Your task to perform on an android device: Open display settings Image 0: 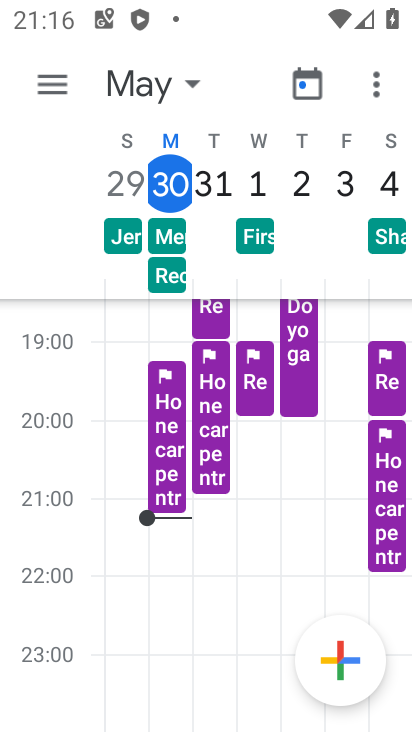
Step 0: press home button
Your task to perform on an android device: Open display settings Image 1: 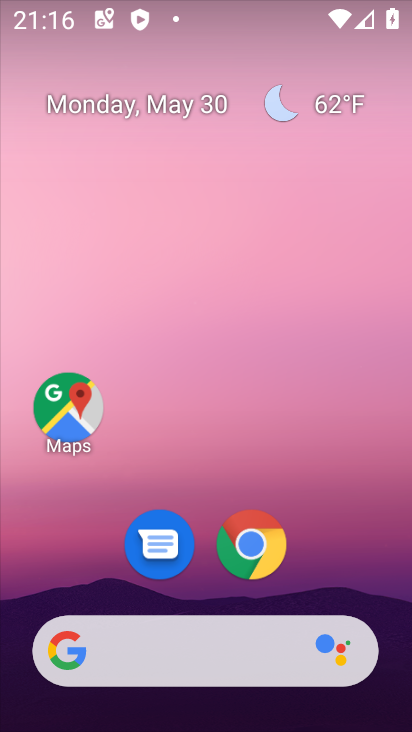
Step 1: drag from (328, 573) to (198, 156)
Your task to perform on an android device: Open display settings Image 2: 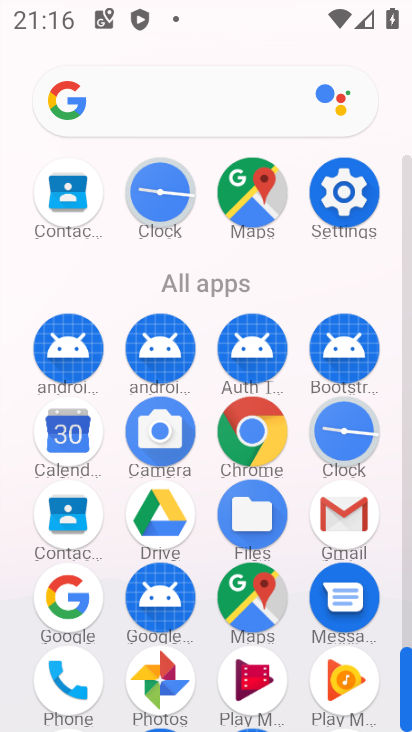
Step 2: click (343, 193)
Your task to perform on an android device: Open display settings Image 3: 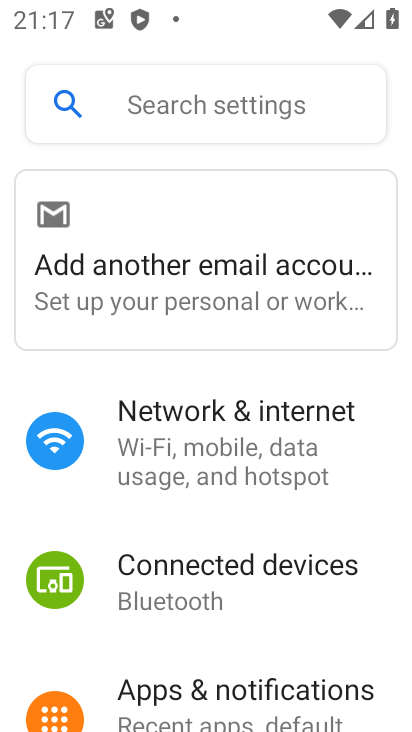
Step 3: drag from (193, 536) to (237, 418)
Your task to perform on an android device: Open display settings Image 4: 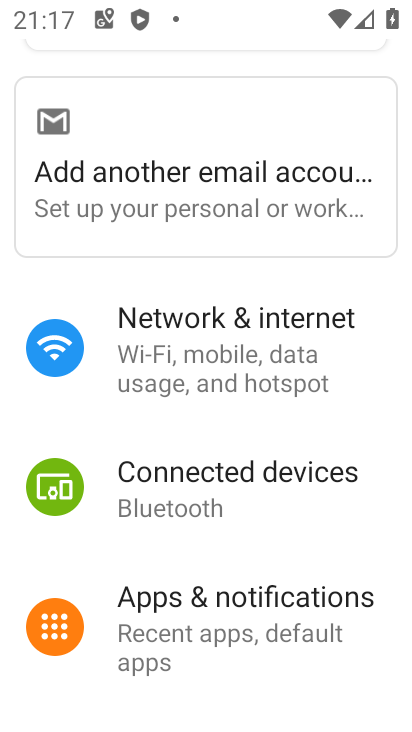
Step 4: drag from (226, 552) to (221, 323)
Your task to perform on an android device: Open display settings Image 5: 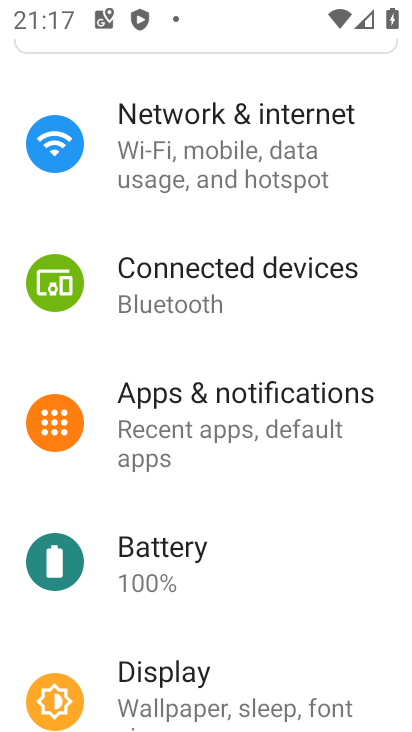
Step 5: drag from (231, 618) to (236, 470)
Your task to perform on an android device: Open display settings Image 6: 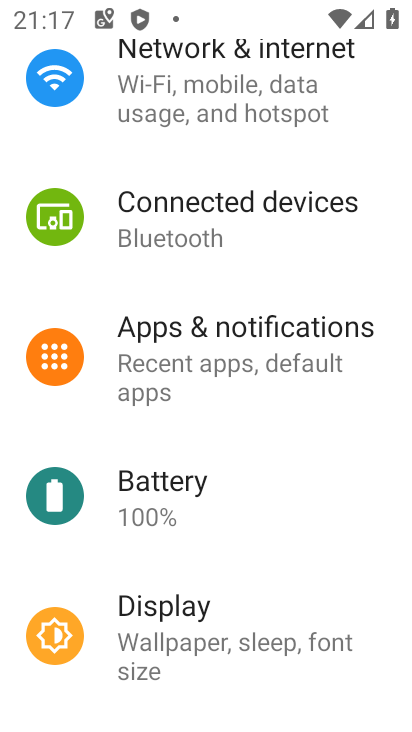
Step 6: click (173, 626)
Your task to perform on an android device: Open display settings Image 7: 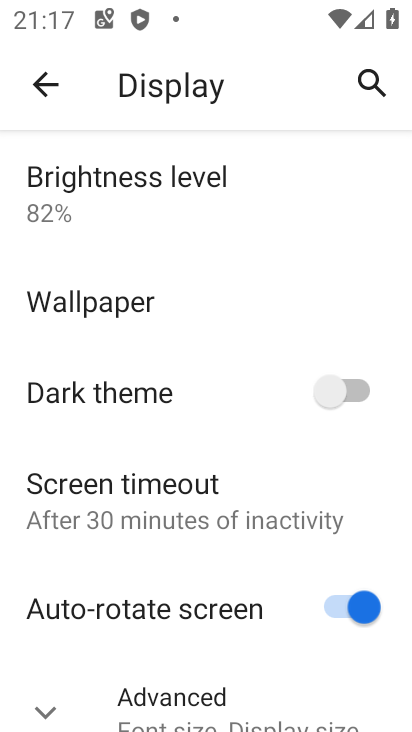
Step 7: task complete